Your task to perform on an android device: Open Chrome and go to settings Image 0: 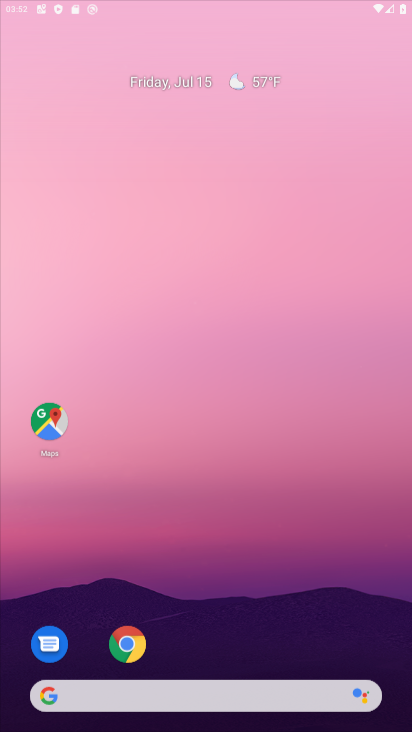
Step 0: drag from (326, 470) to (273, 141)
Your task to perform on an android device: Open Chrome and go to settings Image 1: 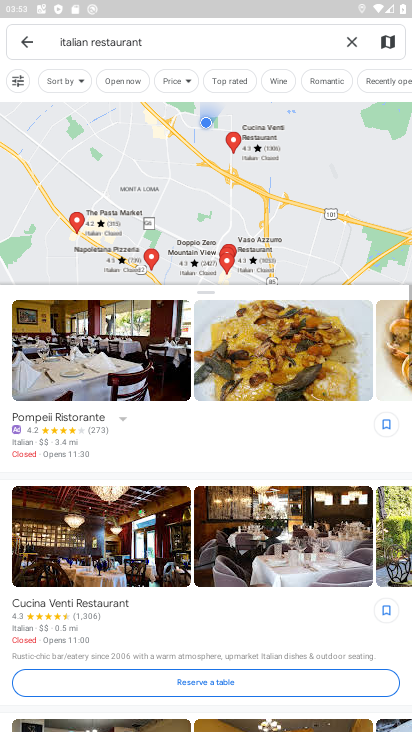
Step 1: press home button
Your task to perform on an android device: Open Chrome and go to settings Image 2: 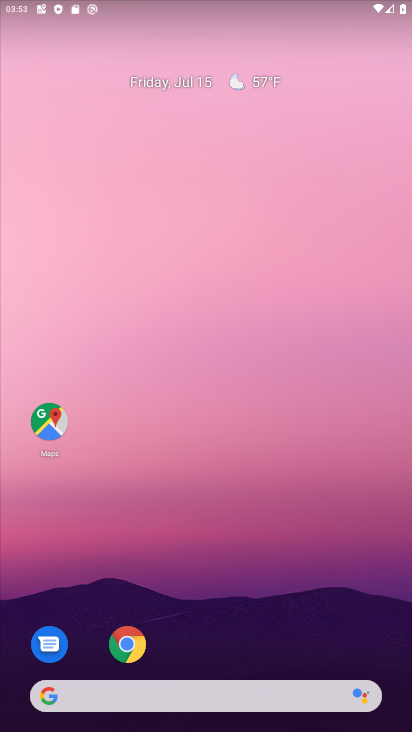
Step 2: click (126, 652)
Your task to perform on an android device: Open Chrome and go to settings Image 3: 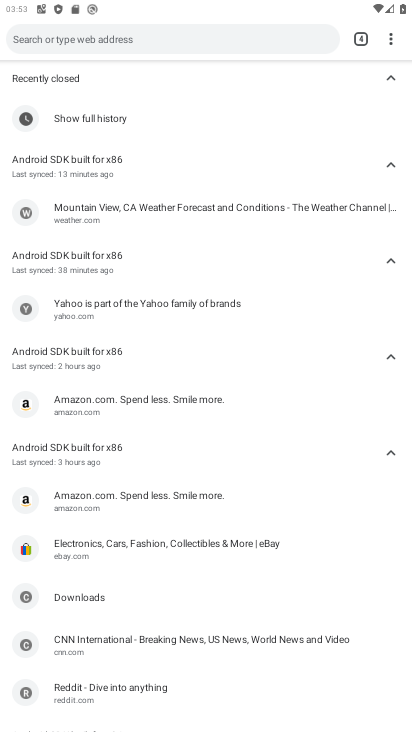
Step 3: click (396, 38)
Your task to perform on an android device: Open Chrome and go to settings Image 4: 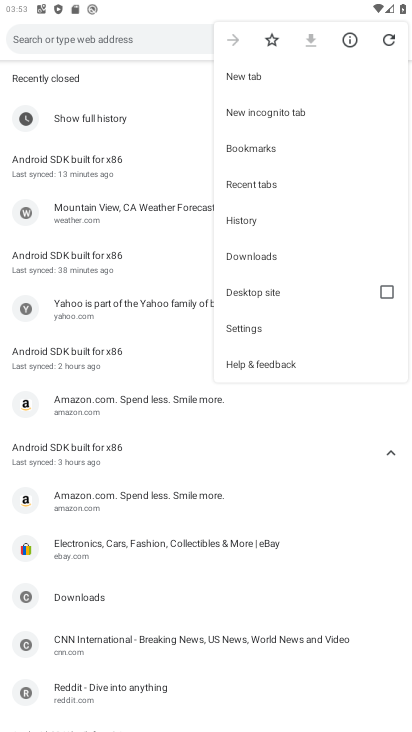
Step 4: click (311, 326)
Your task to perform on an android device: Open Chrome and go to settings Image 5: 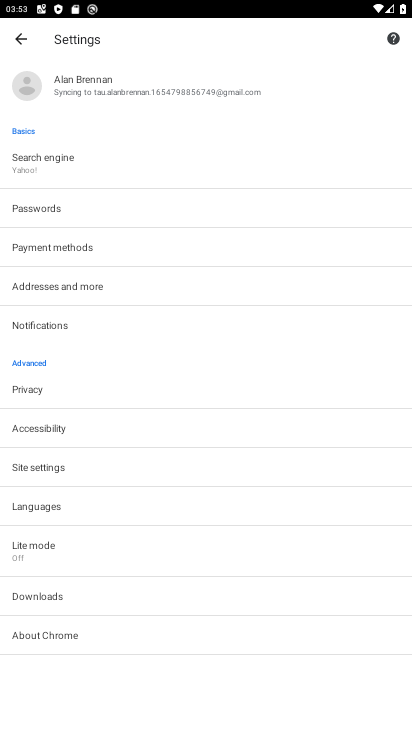
Step 5: task complete